Your task to perform on an android device: turn on wifi Image 0: 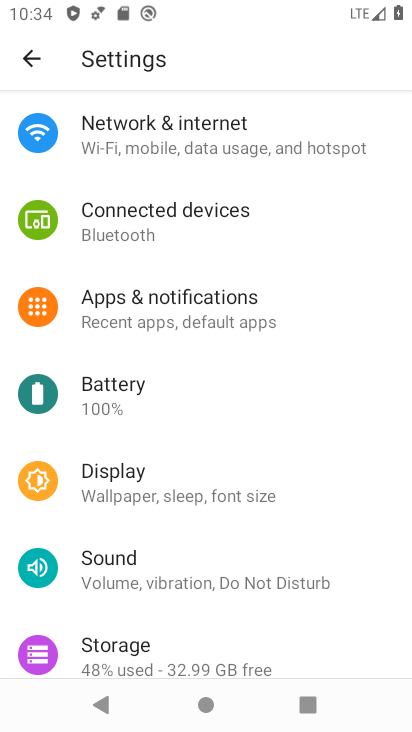
Step 0: drag from (177, 170) to (167, 491)
Your task to perform on an android device: turn on wifi Image 1: 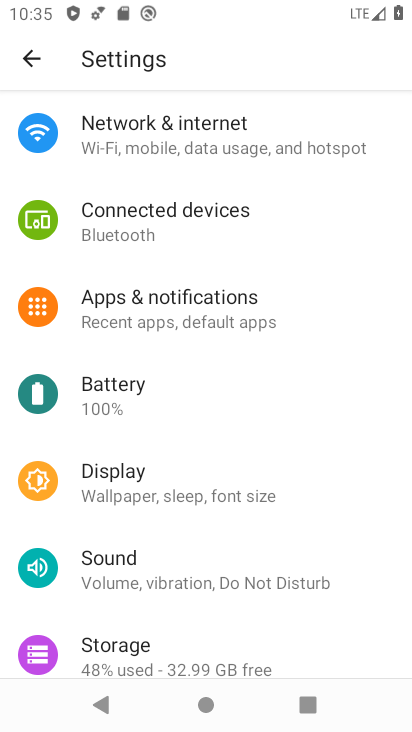
Step 1: drag from (180, 144) to (174, 453)
Your task to perform on an android device: turn on wifi Image 2: 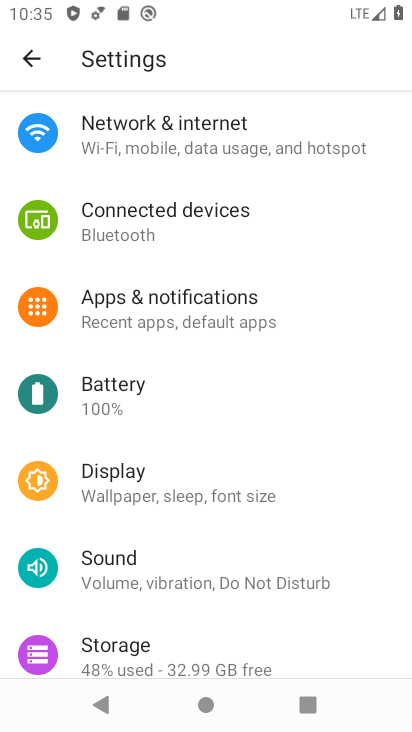
Step 2: click (205, 155)
Your task to perform on an android device: turn on wifi Image 3: 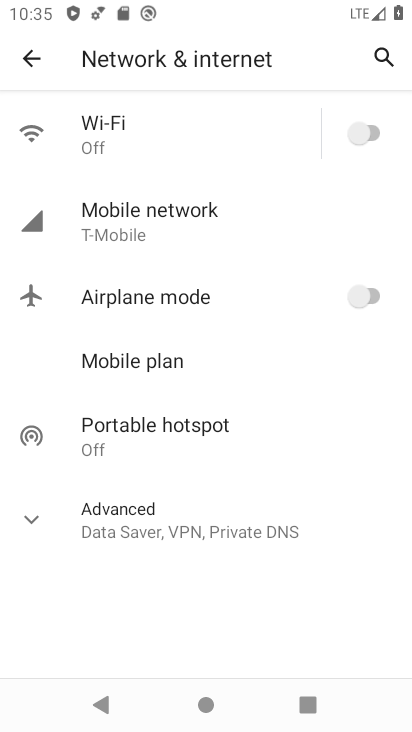
Step 3: click (377, 131)
Your task to perform on an android device: turn on wifi Image 4: 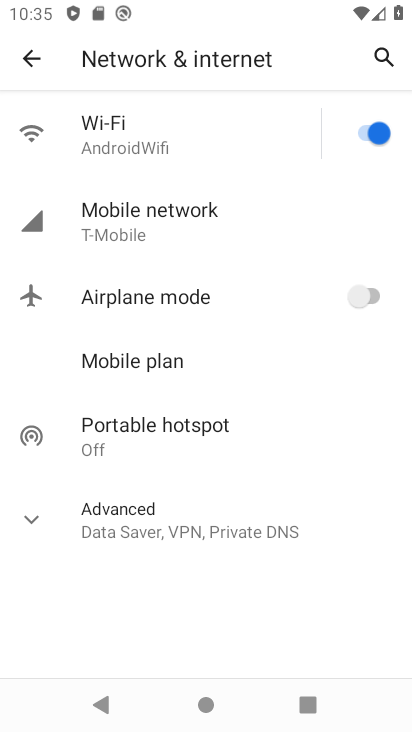
Step 4: task complete